Your task to perform on an android device: turn on improve location accuracy Image 0: 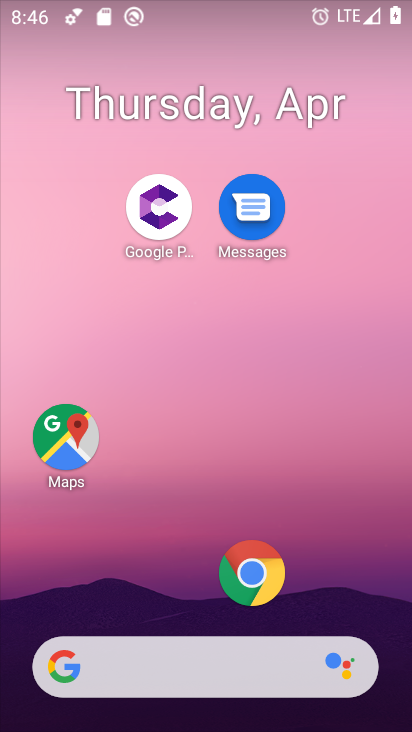
Step 0: drag from (206, 608) to (225, 25)
Your task to perform on an android device: turn on improve location accuracy Image 1: 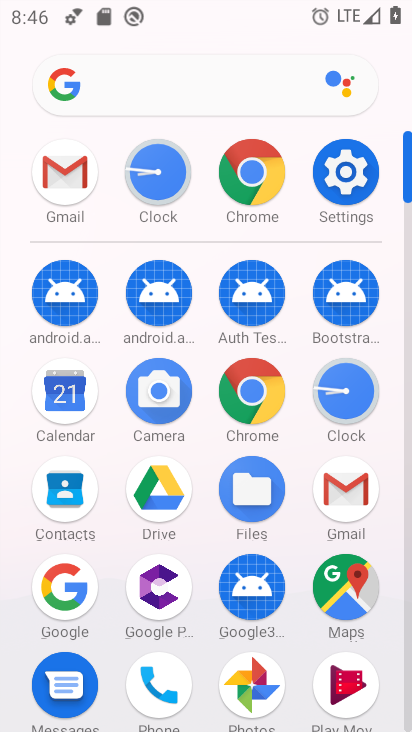
Step 1: click (343, 166)
Your task to perform on an android device: turn on improve location accuracy Image 2: 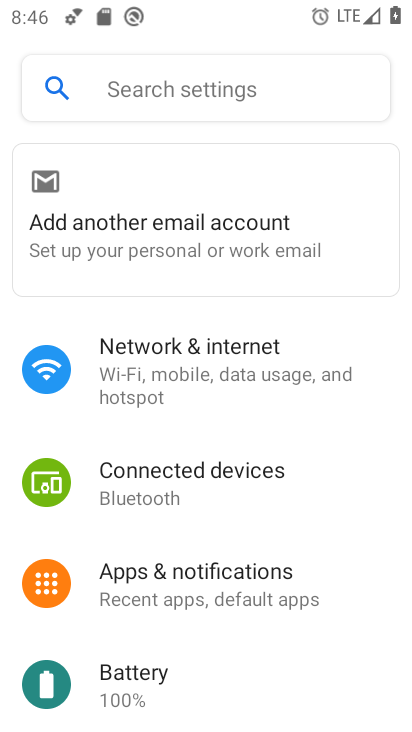
Step 2: drag from (220, 617) to (278, 98)
Your task to perform on an android device: turn on improve location accuracy Image 3: 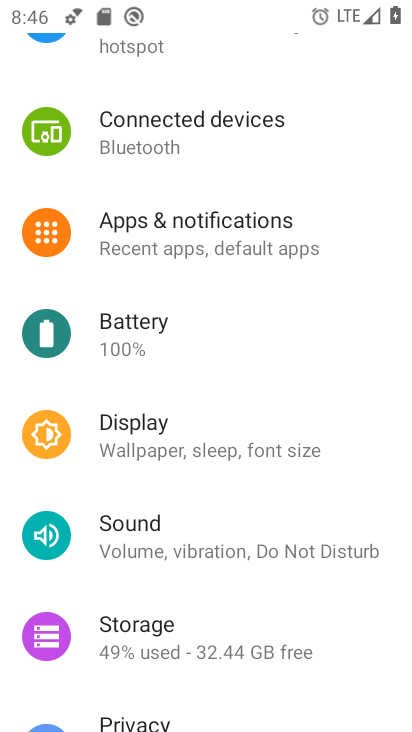
Step 3: drag from (194, 682) to (270, 137)
Your task to perform on an android device: turn on improve location accuracy Image 4: 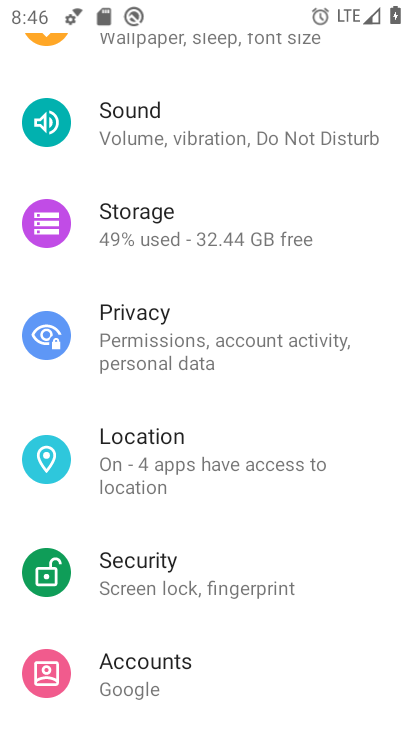
Step 4: click (196, 439)
Your task to perform on an android device: turn on improve location accuracy Image 5: 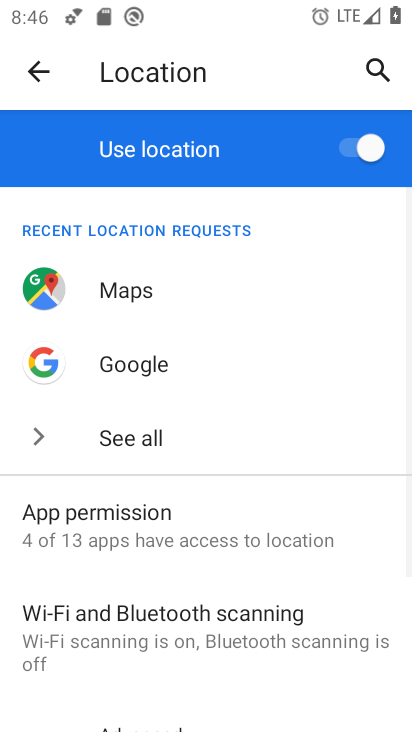
Step 5: drag from (242, 674) to (260, 177)
Your task to perform on an android device: turn on improve location accuracy Image 6: 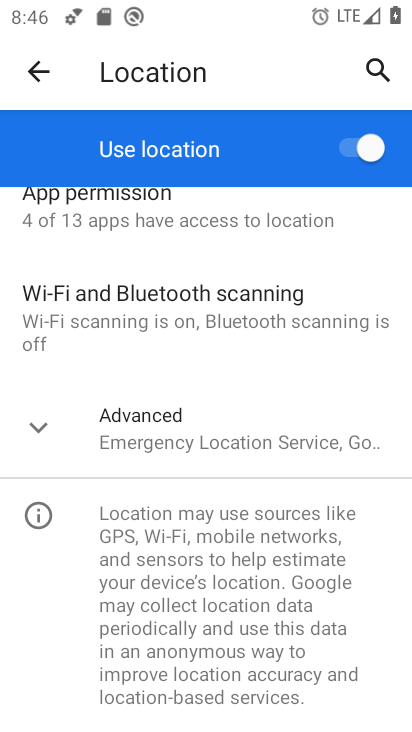
Step 6: click (36, 420)
Your task to perform on an android device: turn on improve location accuracy Image 7: 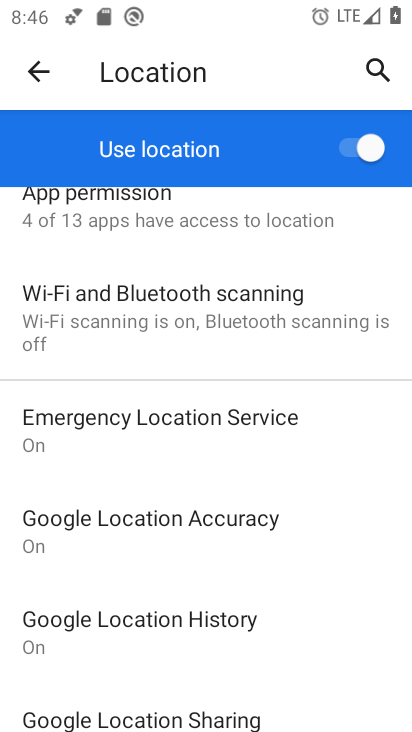
Step 7: click (78, 535)
Your task to perform on an android device: turn on improve location accuracy Image 8: 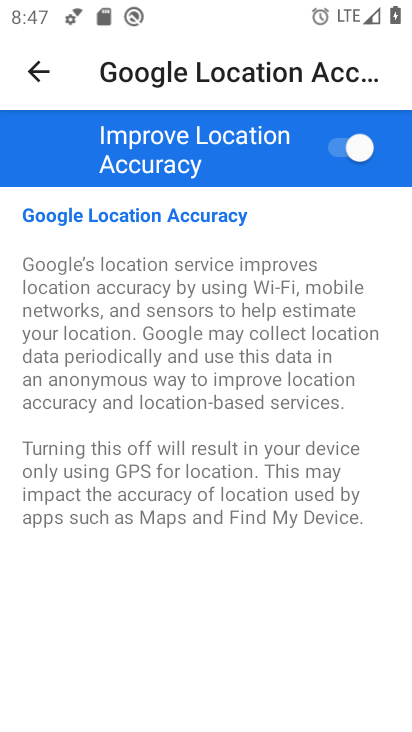
Step 8: task complete